Your task to perform on an android device: toggle priority inbox in the gmail app Image 0: 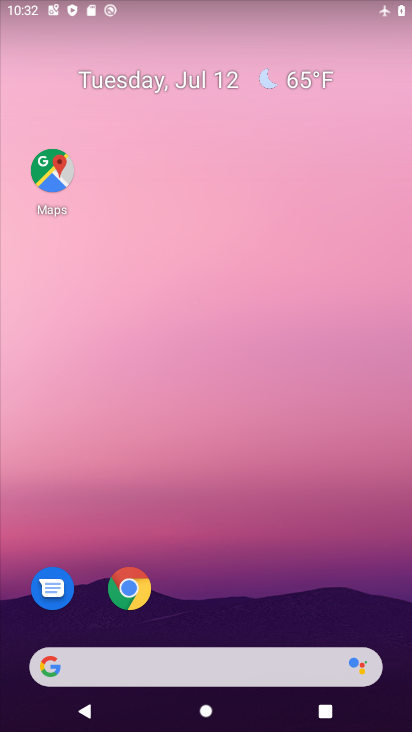
Step 0: drag from (21, 721) to (286, 184)
Your task to perform on an android device: toggle priority inbox in the gmail app Image 1: 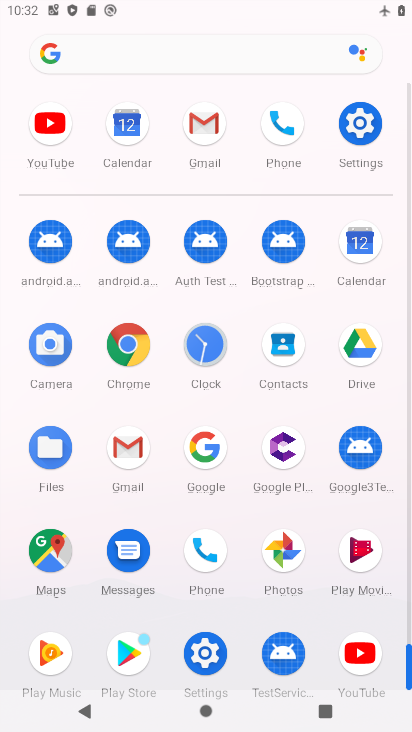
Step 1: click (134, 462)
Your task to perform on an android device: toggle priority inbox in the gmail app Image 2: 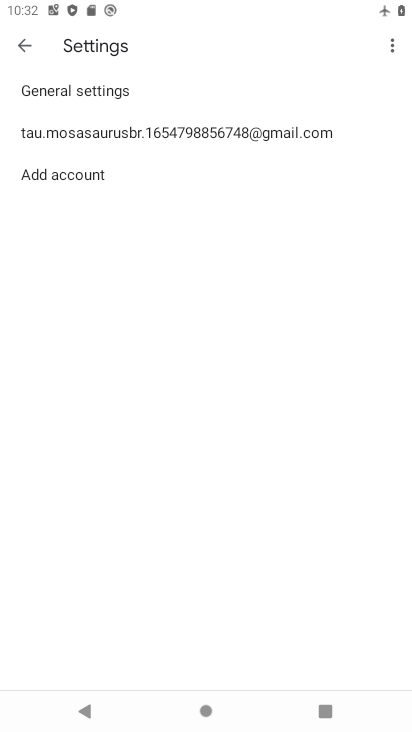
Step 2: click (19, 47)
Your task to perform on an android device: toggle priority inbox in the gmail app Image 3: 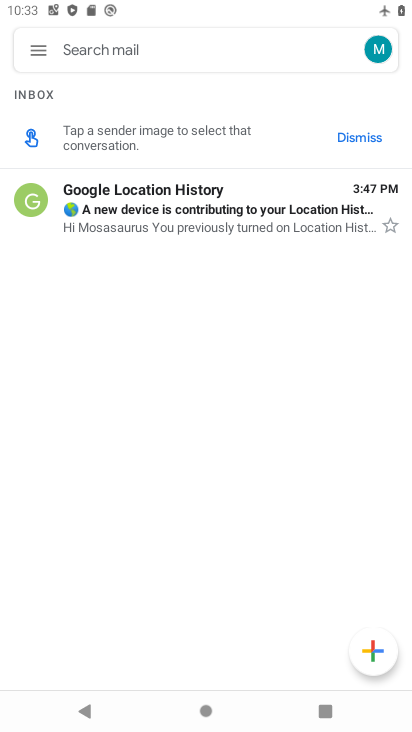
Step 3: click (38, 58)
Your task to perform on an android device: toggle priority inbox in the gmail app Image 4: 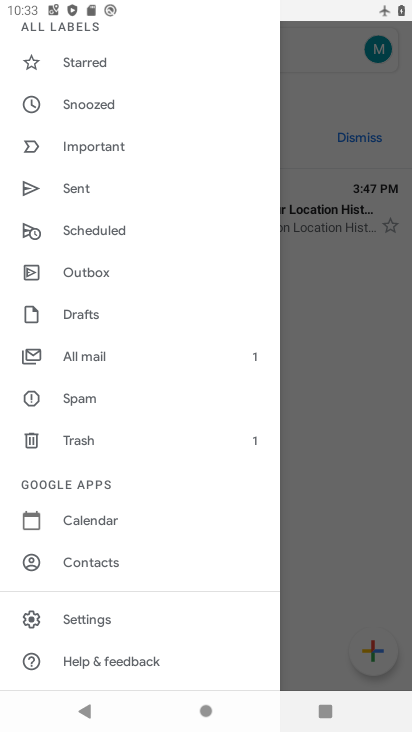
Step 4: click (97, 612)
Your task to perform on an android device: toggle priority inbox in the gmail app Image 5: 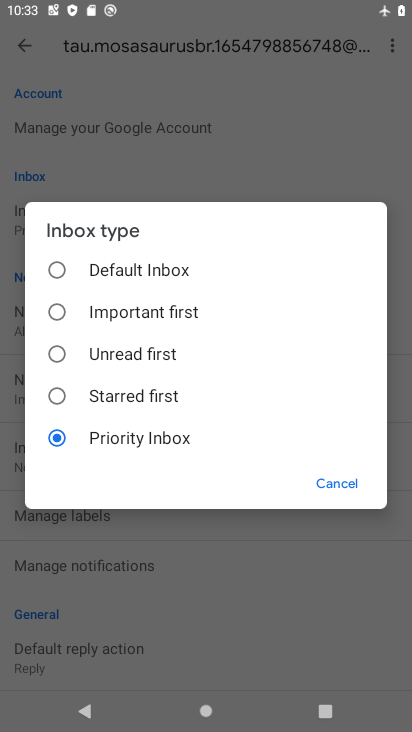
Step 5: task complete